Your task to perform on an android device: Go to display settings Image 0: 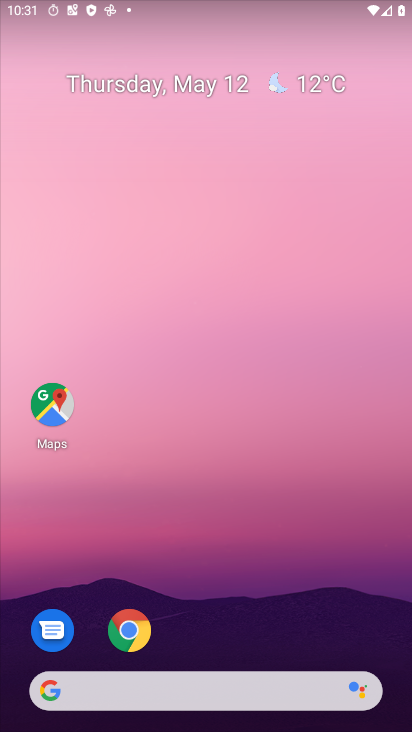
Step 0: drag from (198, 692) to (206, 335)
Your task to perform on an android device: Go to display settings Image 1: 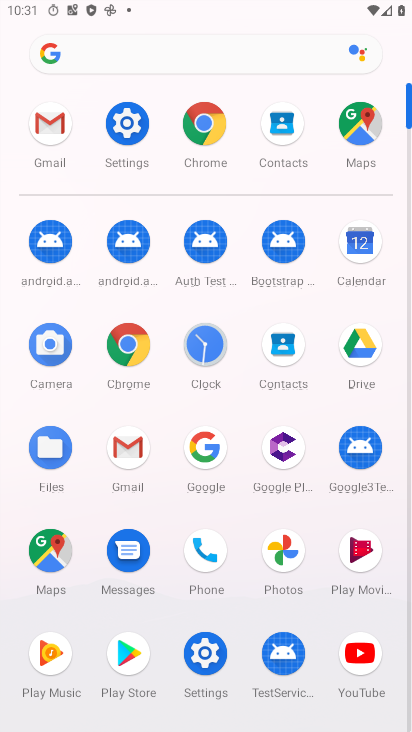
Step 1: click (204, 647)
Your task to perform on an android device: Go to display settings Image 2: 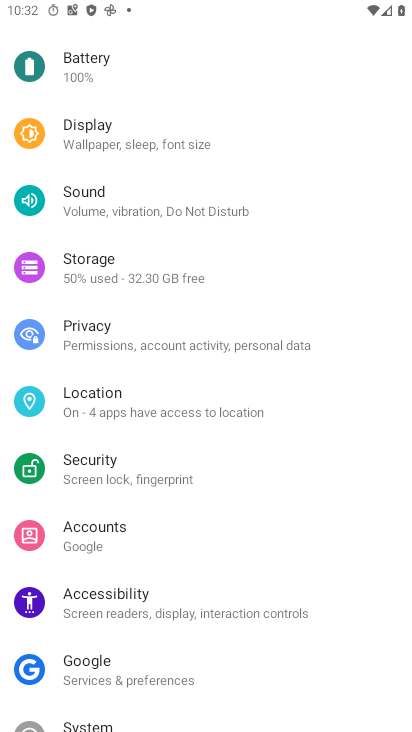
Step 2: click (93, 138)
Your task to perform on an android device: Go to display settings Image 3: 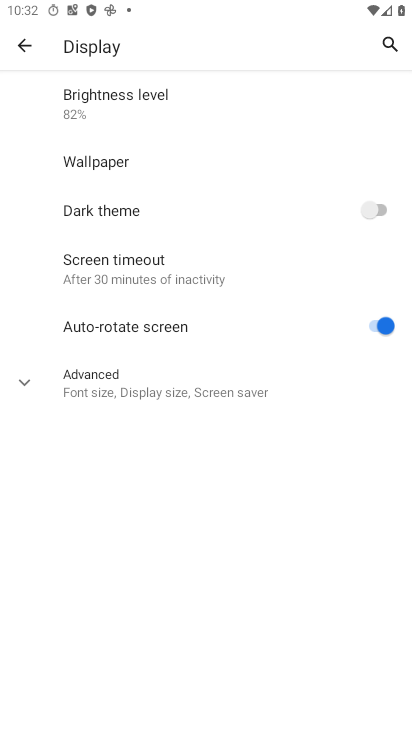
Step 3: task complete